Your task to perform on an android device: What is the recent news? Image 0: 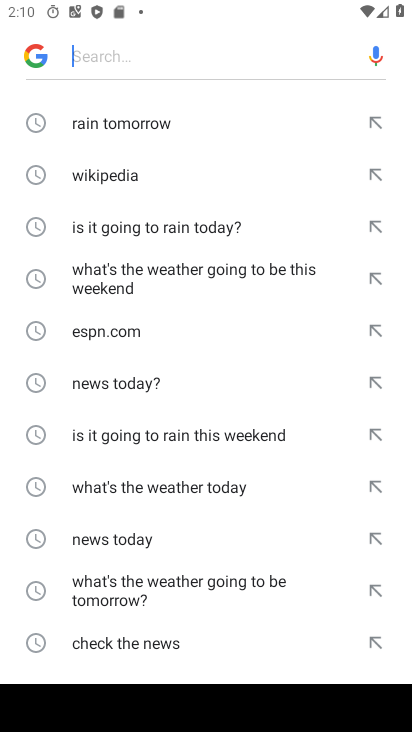
Step 0: press home button
Your task to perform on an android device: What is the recent news? Image 1: 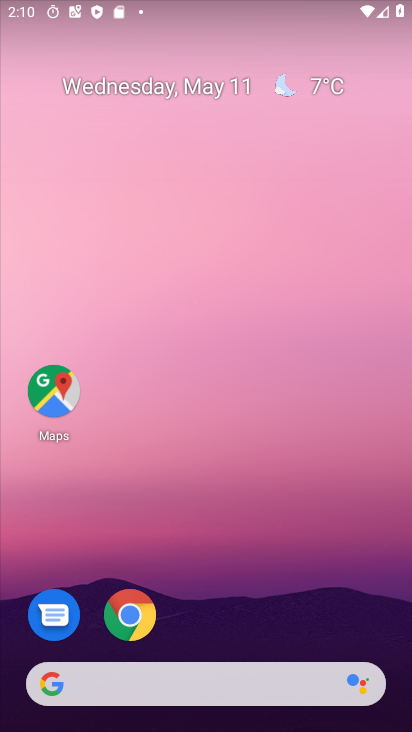
Step 1: task complete